Your task to perform on an android device: Go to notification settings Image 0: 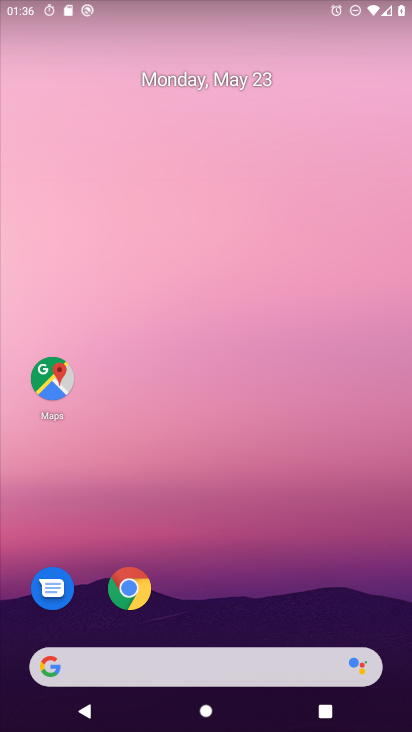
Step 0: drag from (242, 690) to (293, 64)
Your task to perform on an android device: Go to notification settings Image 1: 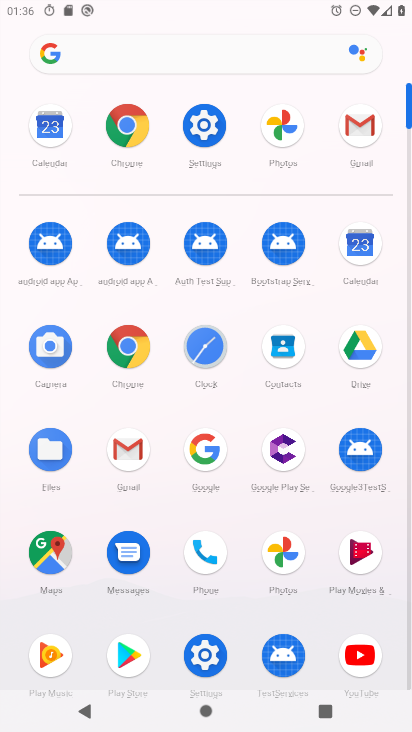
Step 1: click (207, 116)
Your task to perform on an android device: Go to notification settings Image 2: 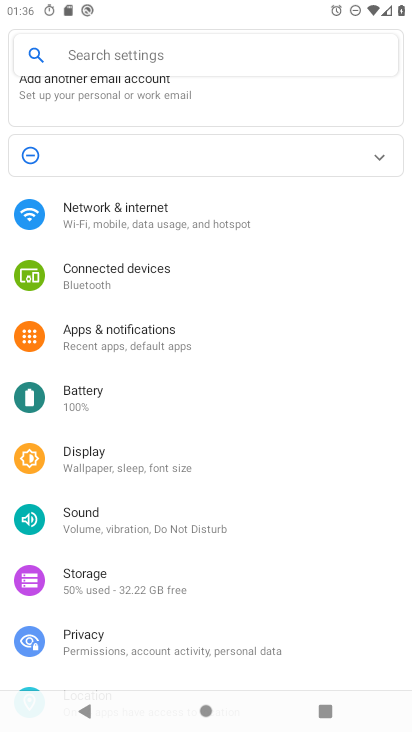
Step 2: click (142, 49)
Your task to perform on an android device: Go to notification settings Image 3: 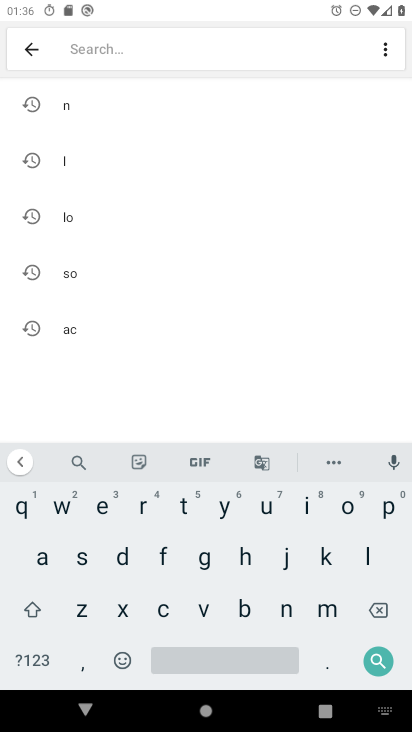
Step 3: click (291, 612)
Your task to perform on an android device: Go to notification settings Image 4: 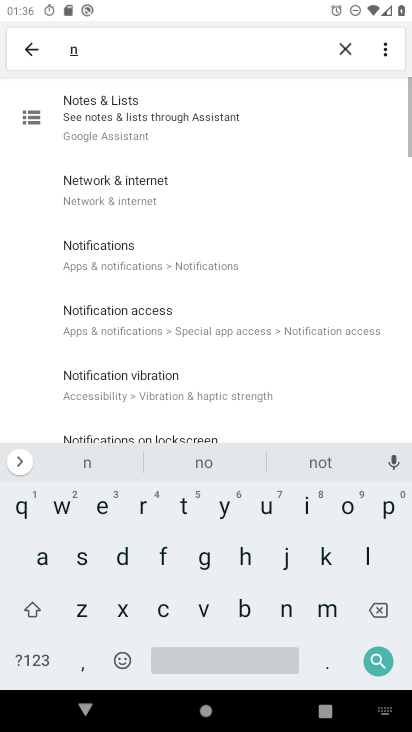
Step 4: click (348, 500)
Your task to perform on an android device: Go to notification settings Image 5: 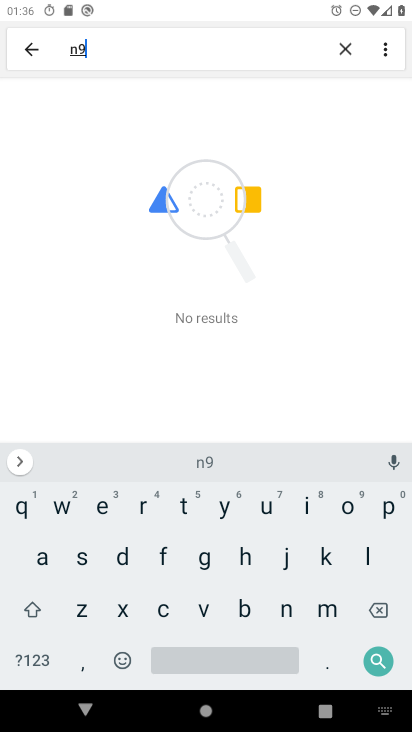
Step 5: click (389, 612)
Your task to perform on an android device: Go to notification settings Image 6: 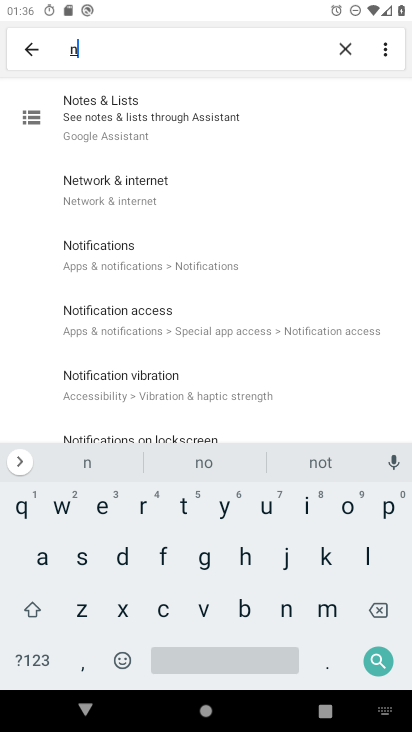
Step 6: click (133, 262)
Your task to perform on an android device: Go to notification settings Image 7: 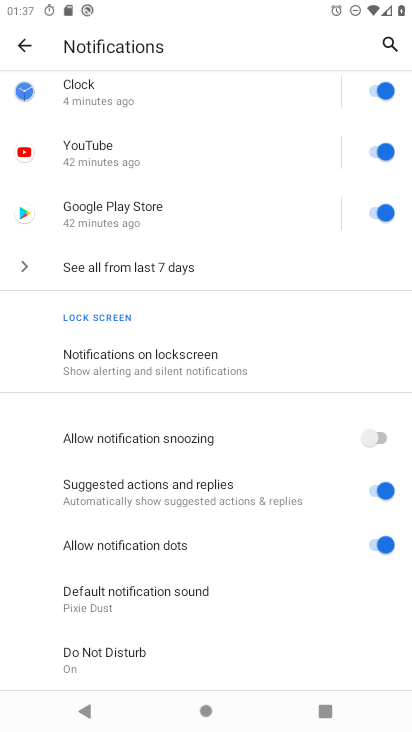
Step 7: click (109, 368)
Your task to perform on an android device: Go to notification settings Image 8: 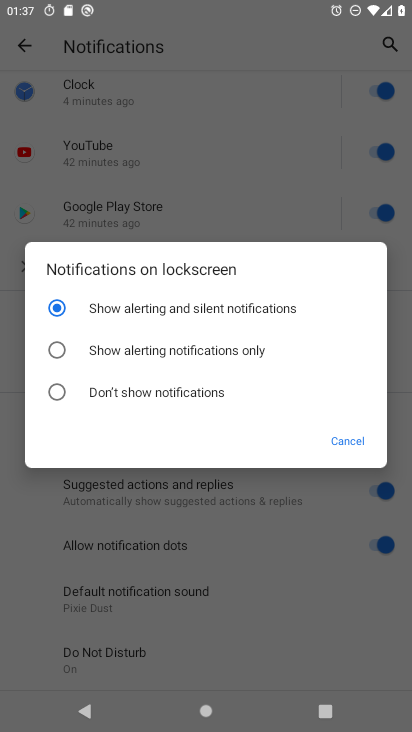
Step 8: task complete